Your task to perform on an android device: Search for vegetarian restaurants on Maps Image 0: 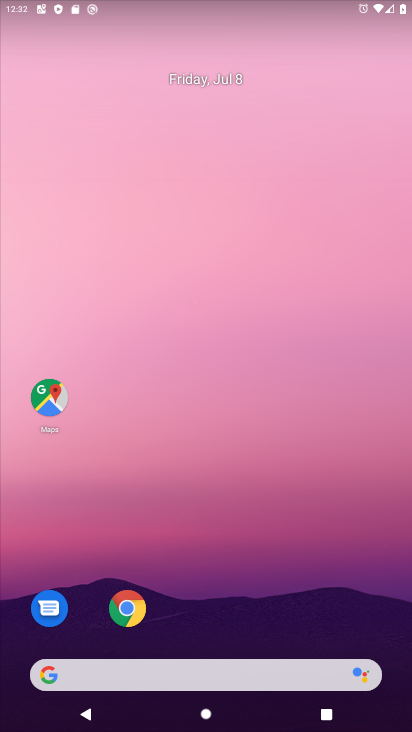
Step 0: click (52, 398)
Your task to perform on an android device: Search for vegetarian restaurants on Maps Image 1: 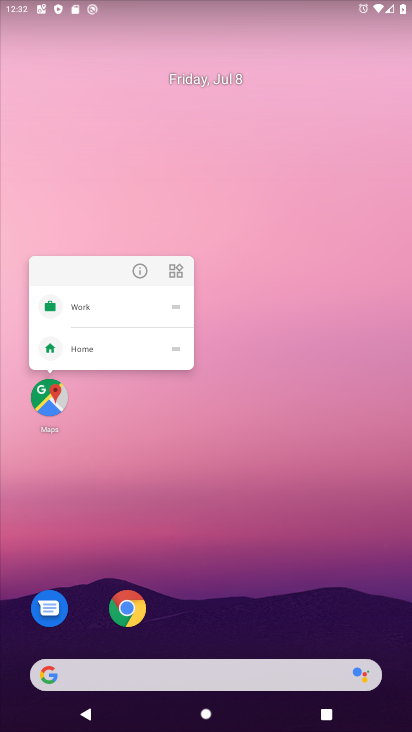
Step 1: click (63, 409)
Your task to perform on an android device: Search for vegetarian restaurants on Maps Image 2: 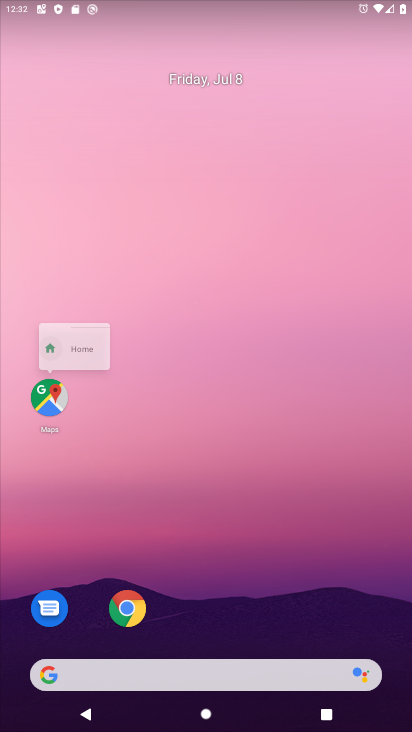
Step 2: click (53, 404)
Your task to perform on an android device: Search for vegetarian restaurants on Maps Image 3: 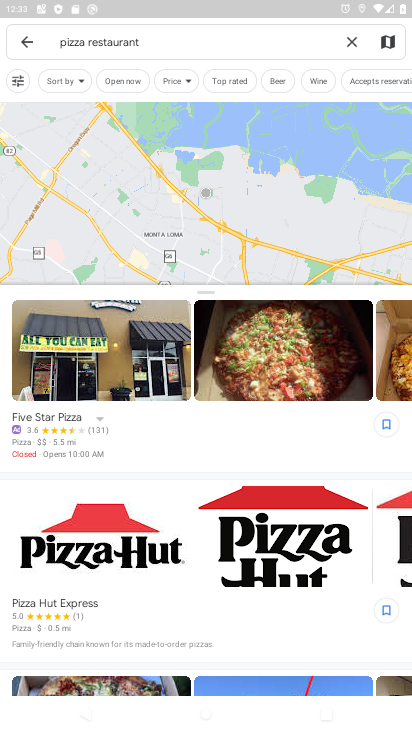
Step 3: click (349, 40)
Your task to perform on an android device: Search for vegetarian restaurants on Maps Image 4: 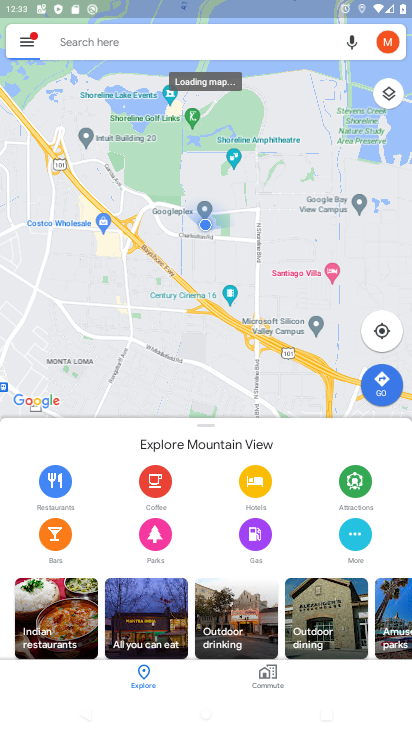
Step 4: click (100, 34)
Your task to perform on an android device: Search for vegetarian restaurants on Maps Image 5: 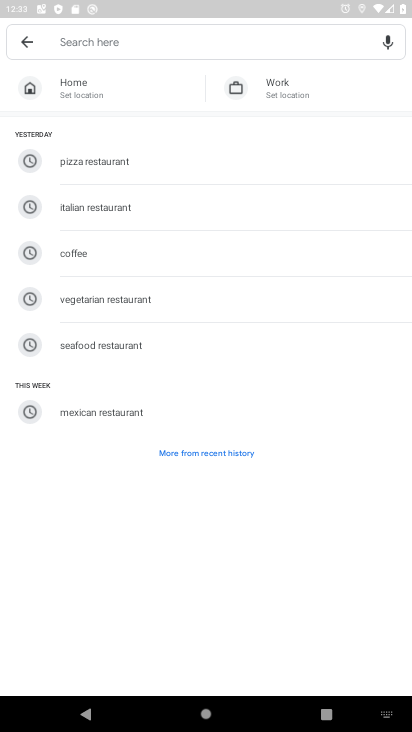
Step 5: type "vegetarian restaurants"
Your task to perform on an android device: Search for vegetarian restaurants on Maps Image 6: 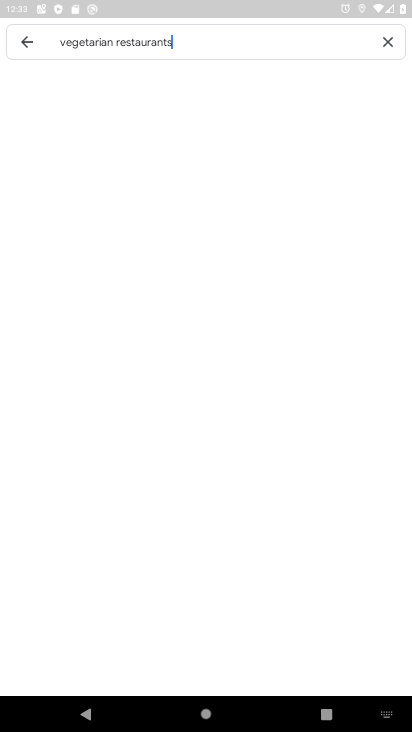
Step 6: type ""
Your task to perform on an android device: Search for vegetarian restaurants on Maps Image 7: 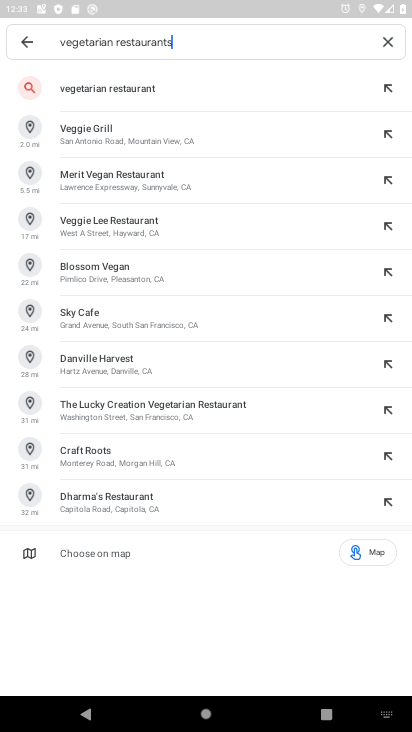
Step 7: click (134, 87)
Your task to perform on an android device: Search for vegetarian restaurants on Maps Image 8: 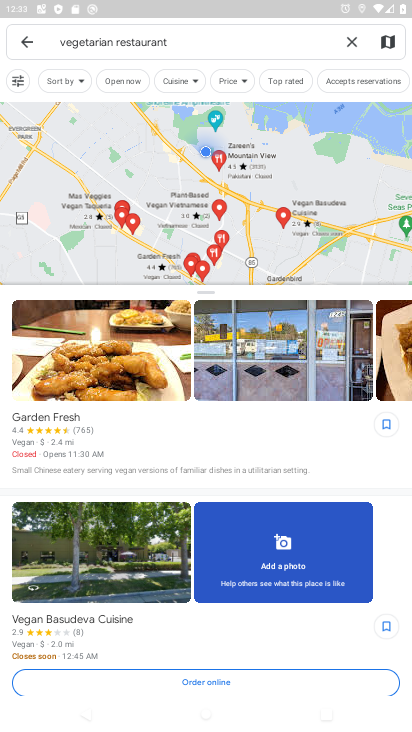
Step 8: task complete